Your task to perform on an android device: Open Google Chrome and open the bookmarks view Image 0: 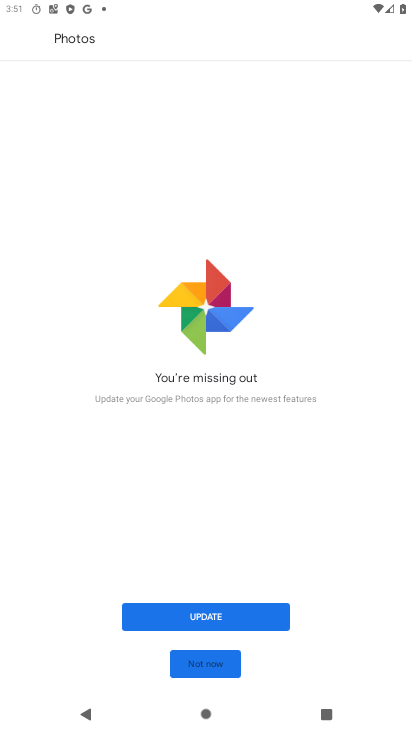
Step 0: click (204, 611)
Your task to perform on an android device: Open Google Chrome and open the bookmarks view Image 1: 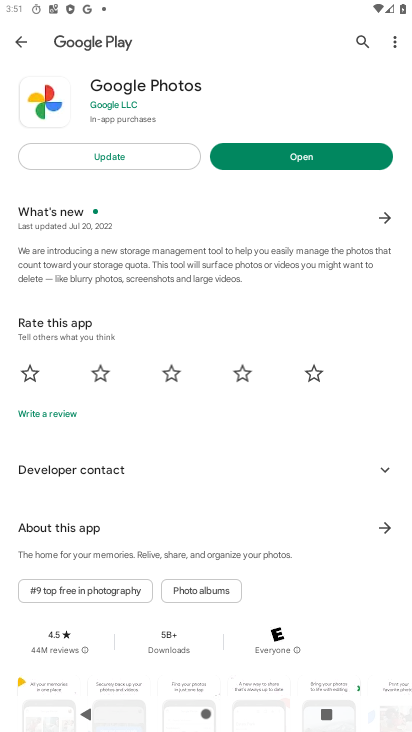
Step 1: click (109, 159)
Your task to perform on an android device: Open Google Chrome and open the bookmarks view Image 2: 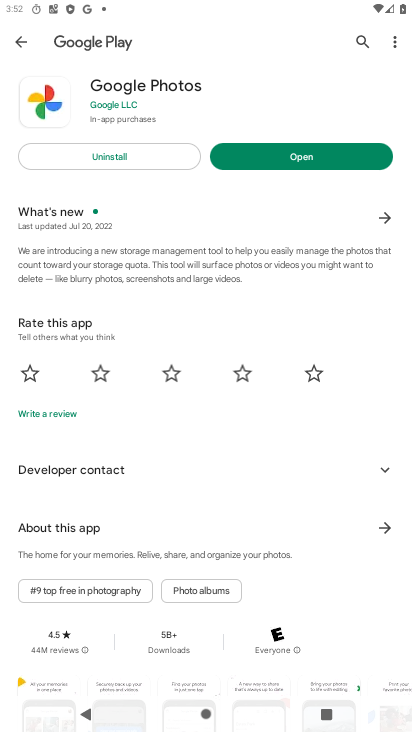
Step 2: click (307, 149)
Your task to perform on an android device: Open Google Chrome and open the bookmarks view Image 3: 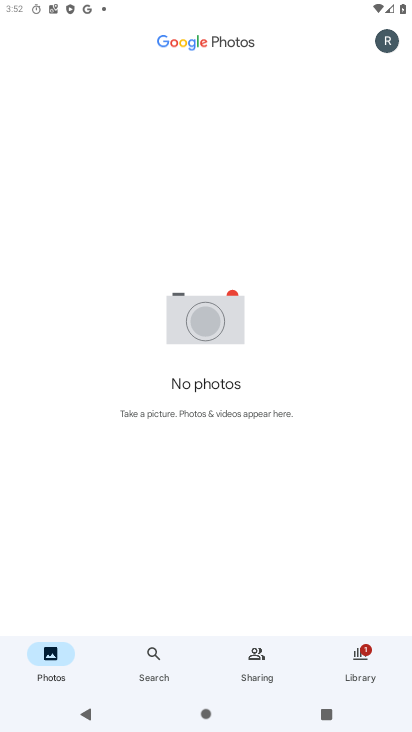
Step 3: press home button
Your task to perform on an android device: Open Google Chrome and open the bookmarks view Image 4: 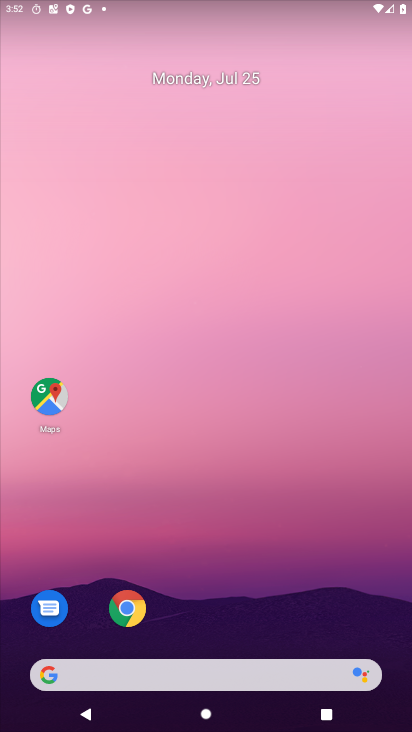
Step 4: click (130, 604)
Your task to perform on an android device: Open Google Chrome and open the bookmarks view Image 5: 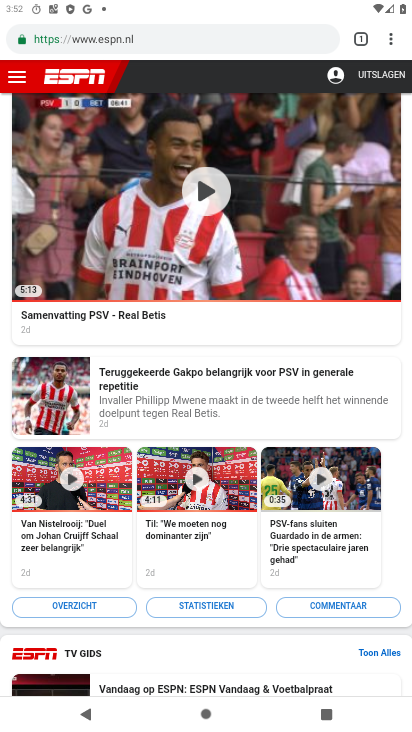
Step 5: click (395, 39)
Your task to perform on an android device: Open Google Chrome and open the bookmarks view Image 6: 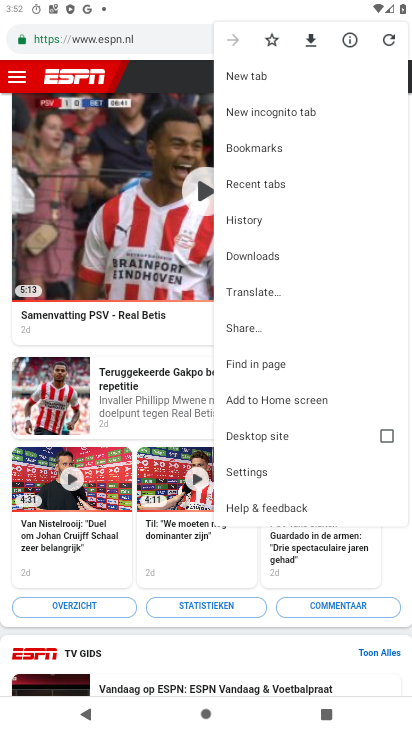
Step 6: click (284, 143)
Your task to perform on an android device: Open Google Chrome and open the bookmarks view Image 7: 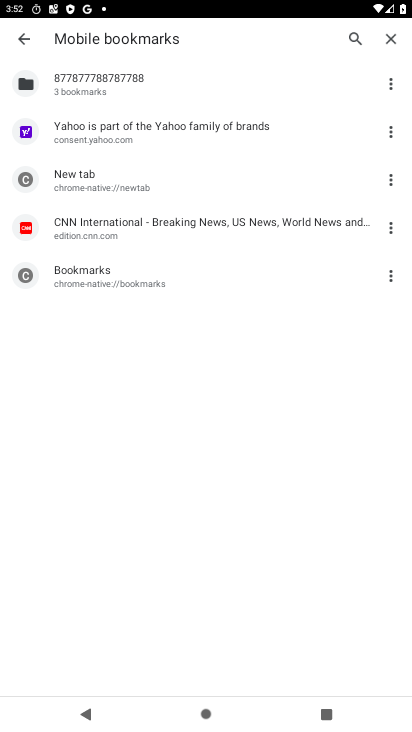
Step 7: task complete